Your task to perform on an android device: Search for seafood restaurants on Google Maps Image 0: 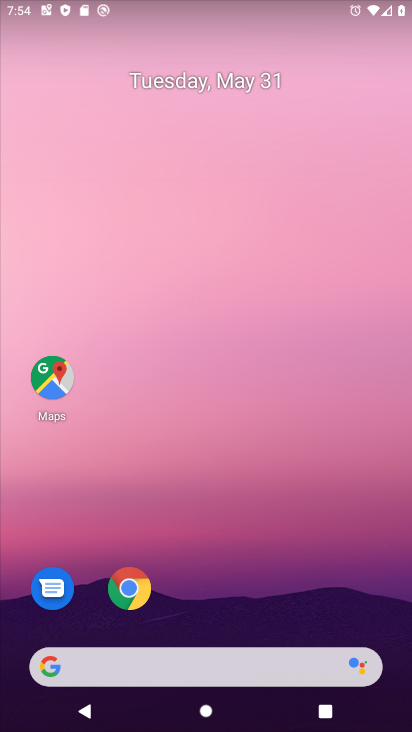
Step 0: click (62, 392)
Your task to perform on an android device: Search for seafood restaurants on Google Maps Image 1: 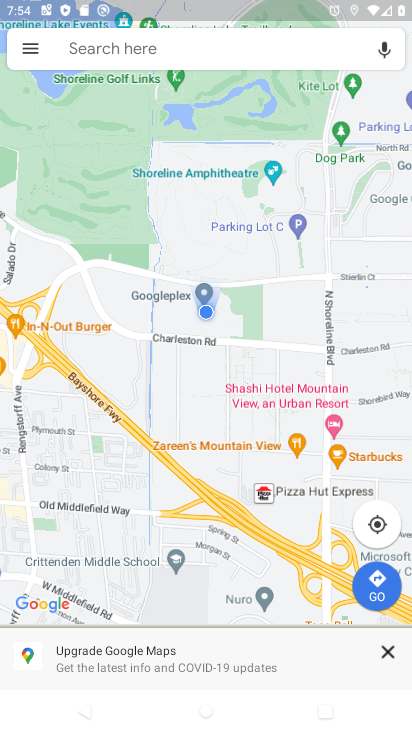
Step 1: click (203, 47)
Your task to perform on an android device: Search for seafood restaurants on Google Maps Image 2: 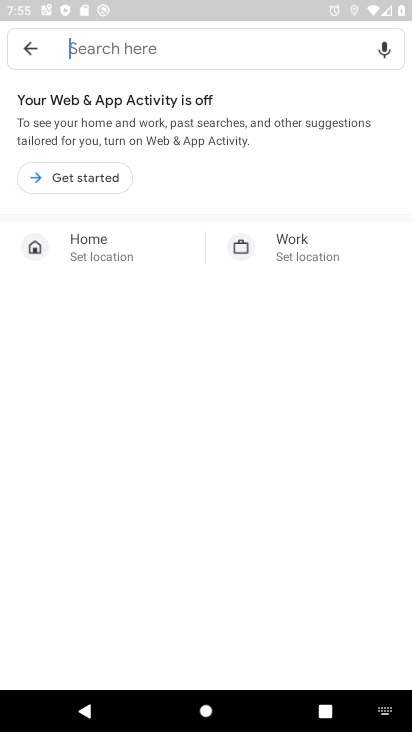
Step 2: type "seafood restaurants"
Your task to perform on an android device: Search for seafood restaurants on Google Maps Image 3: 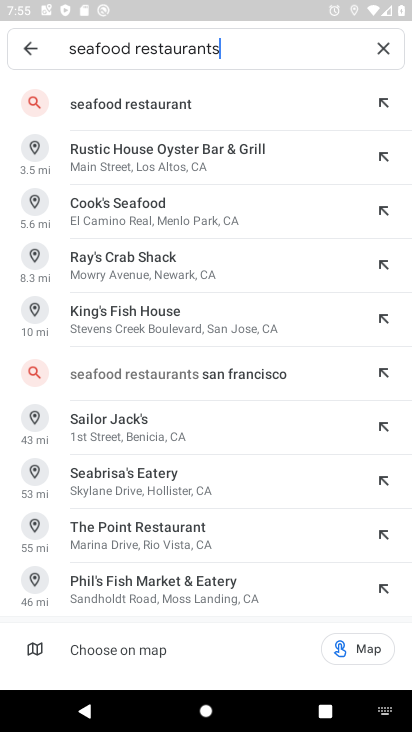
Step 3: click (202, 117)
Your task to perform on an android device: Search for seafood restaurants on Google Maps Image 4: 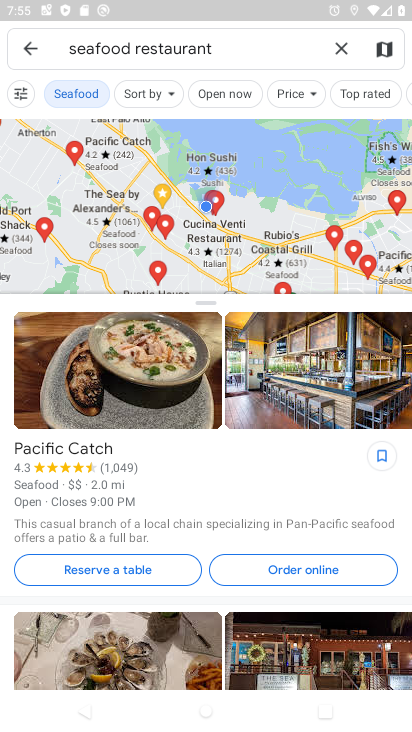
Step 4: task complete